Your task to perform on an android device: Search for Mexican restaurants on Maps Image 0: 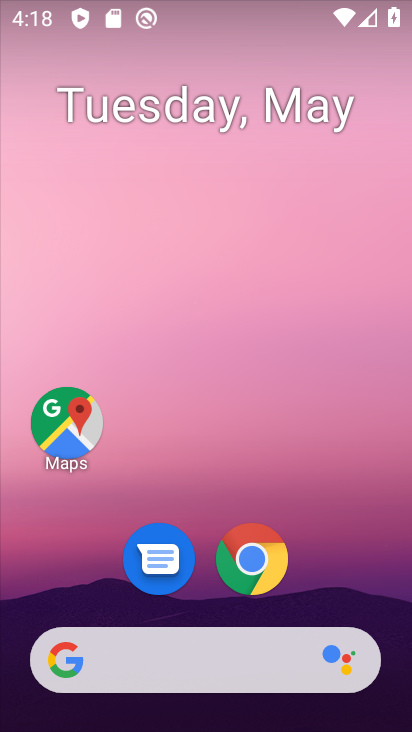
Step 0: click (67, 421)
Your task to perform on an android device: Search for Mexican restaurants on Maps Image 1: 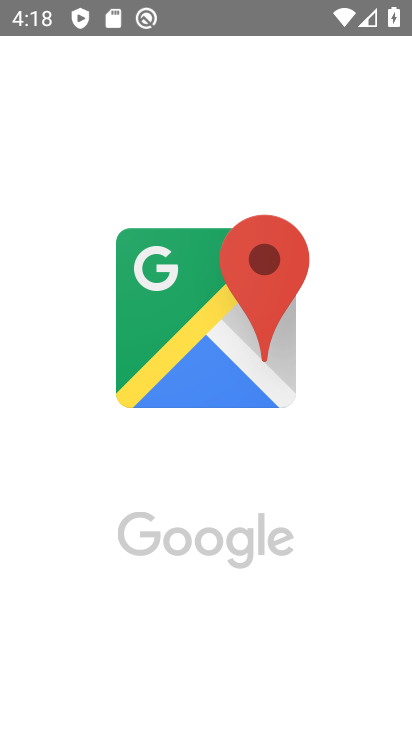
Step 1: drag from (191, 601) to (218, 409)
Your task to perform on an android device: Search for Mexican restaurants on Maps Image 2: 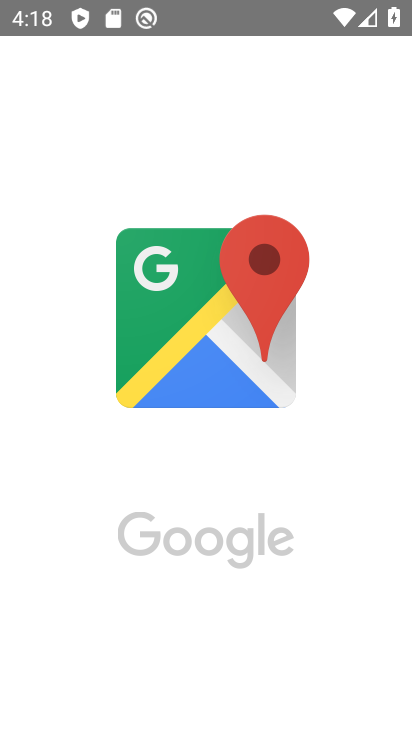
Step 2: drag from (330, 498) to (217, 512)
Your task to perform on an android device: Search for Mexican restaurants on Maps Image 3: 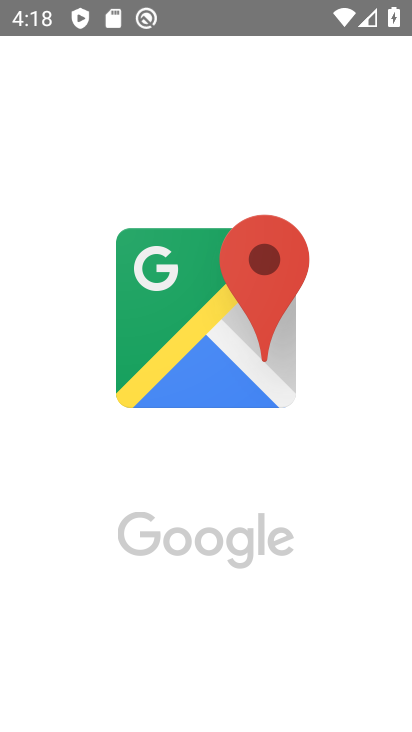
Step 3: press home button
Your task to perform on an android device: Search for Mexican restaurants on Maps Image 4: 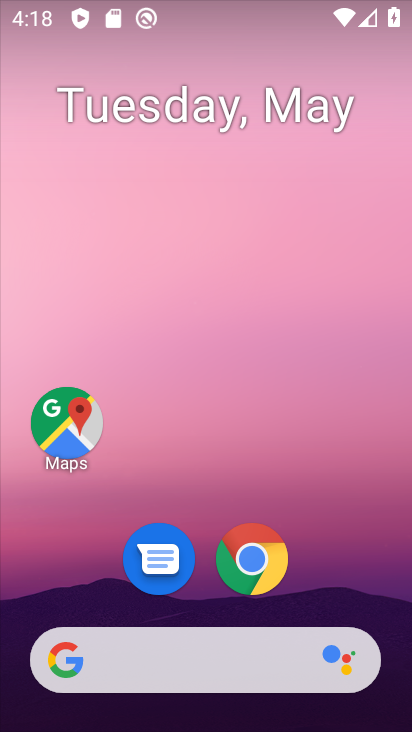
Step 4: click (68, 415)
Your task to perform on an android device: Search for Mexican restaurants on Maps Image 5: 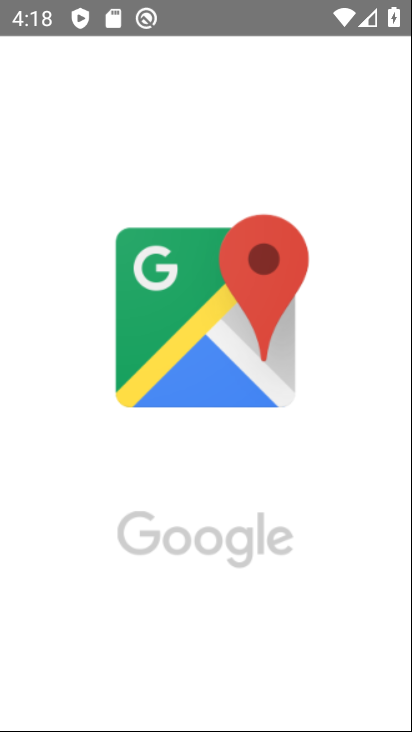
Step 5: task complete